Your task to perform on an android device: turn off data saver in the chrome app Image 0: 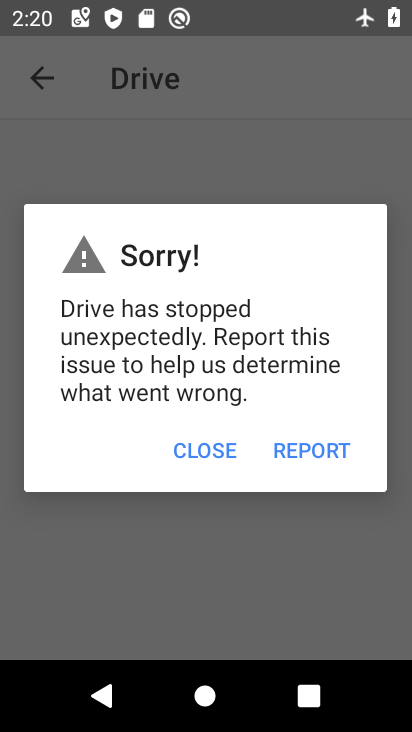
Step 0: press home button
Your task to perform on an android device: turn off data saver in the chrome app Image 1: 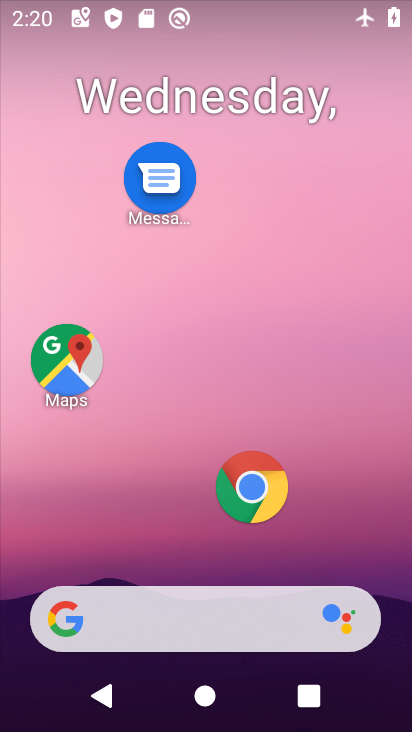
Step 1: click (252, 503)
Your task to perform on an android device: turn off data saver in the chrome app Image 2: 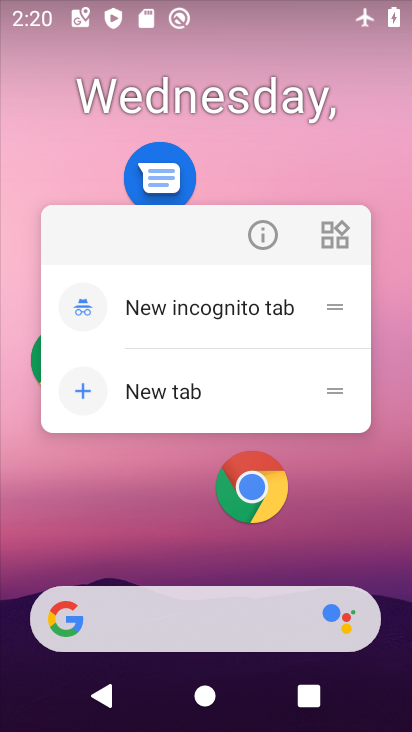
Step 2: click (251, 479)
Your task to perform on an android device: turn off data saver in the chrome app Image 3: 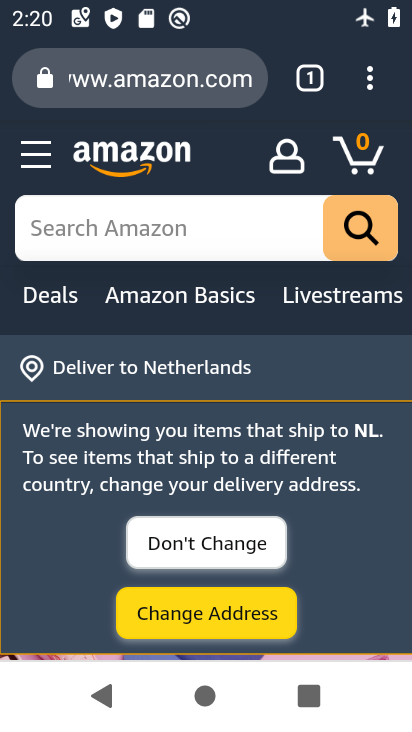
Step 3: drag from (371, 72) to (141, 546)
Your task to perform on an android device: turn off data saver in the chrome app Image 4: 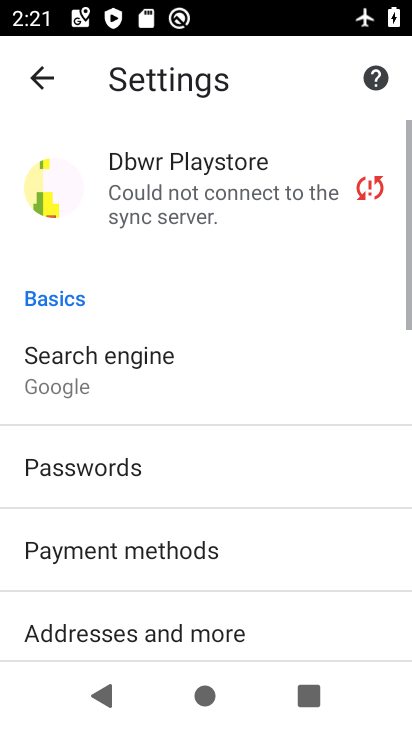
Step 4: drag from (192, 584) to (225, 271)
Your task to perform on an android device: turn off data saver in the chrome app Image 5: 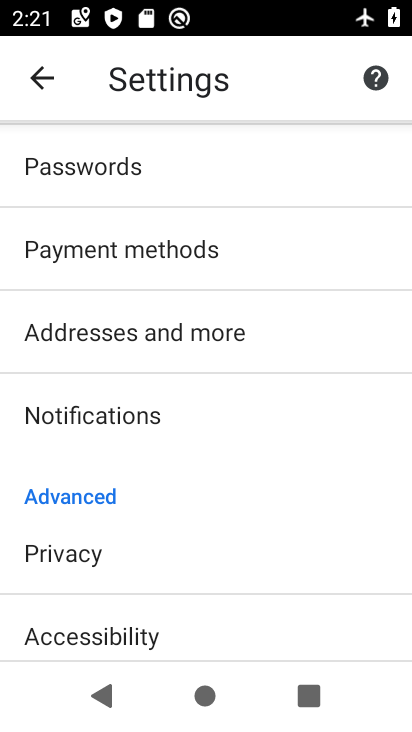
Step 5: drag from (171, 539) to (198, 260)
Your task to perform on an android device: turn off data saver in the chrome app Image 6: 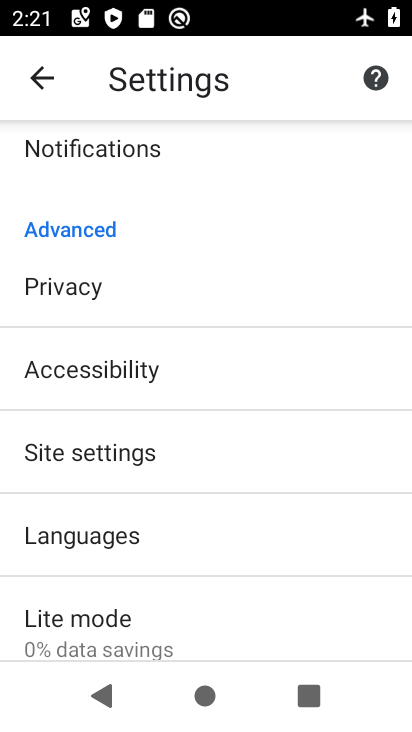
Step 6: click (130, 604)
Your task to perform on an android device: turn off data saver in the chrome app Image 7: 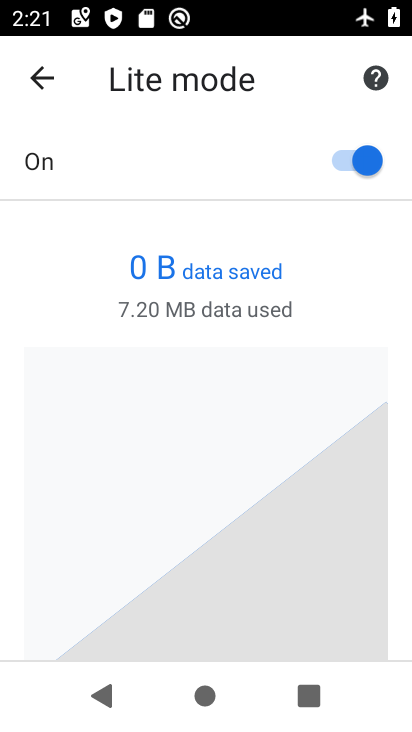
Step 7: click (340, 166)
Your task to perform on an android device: turn off data saver in the chrome app Image 8: 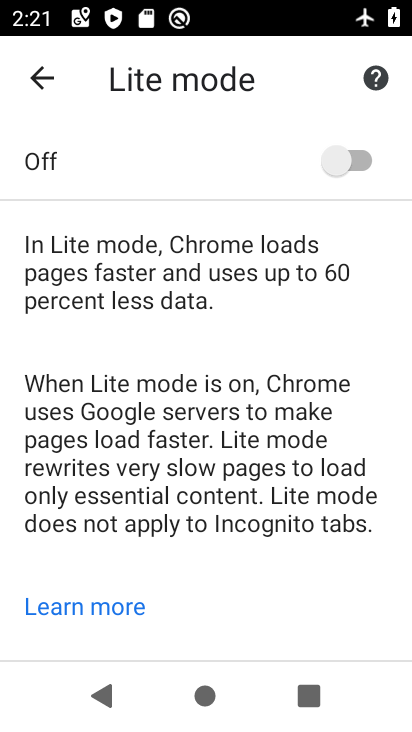
Step 8: task complete